Your task to perform on an android device: check android version Image 0: 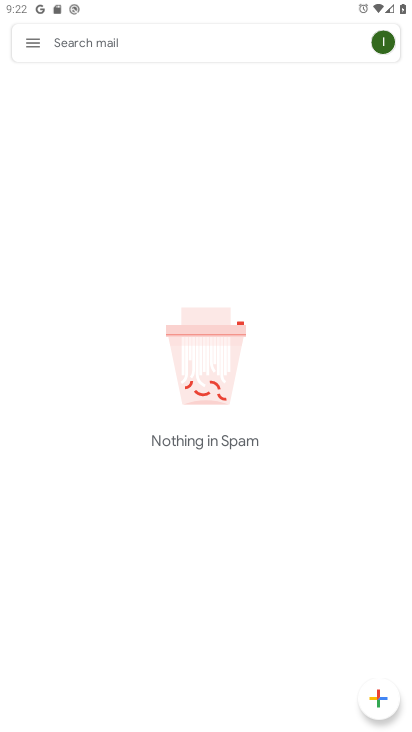
Step 0: press home button
Your task to perform on an android device: check android version Image 1: 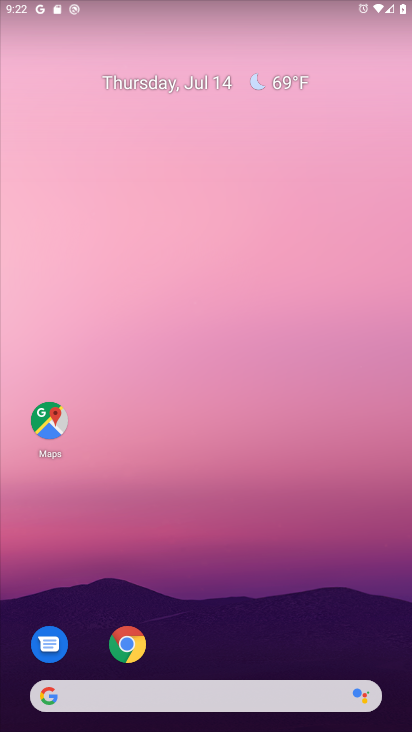
Step 1: drag from (194, 642) to (213, 109)
Your task to perform on an android device: check android version Image 2: 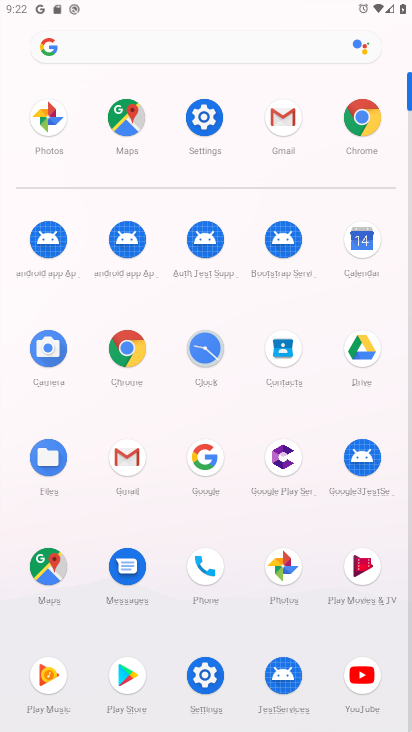
Step 2: click (219, 113)
Your task to perform on an android device: check android version Image 3: 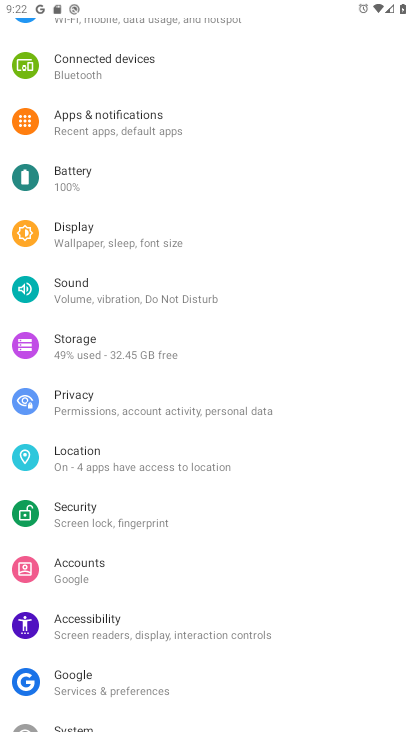
Step 3: task complete